Your task to perform on an android device: Empty the shopping cart on target.com. Image 0: 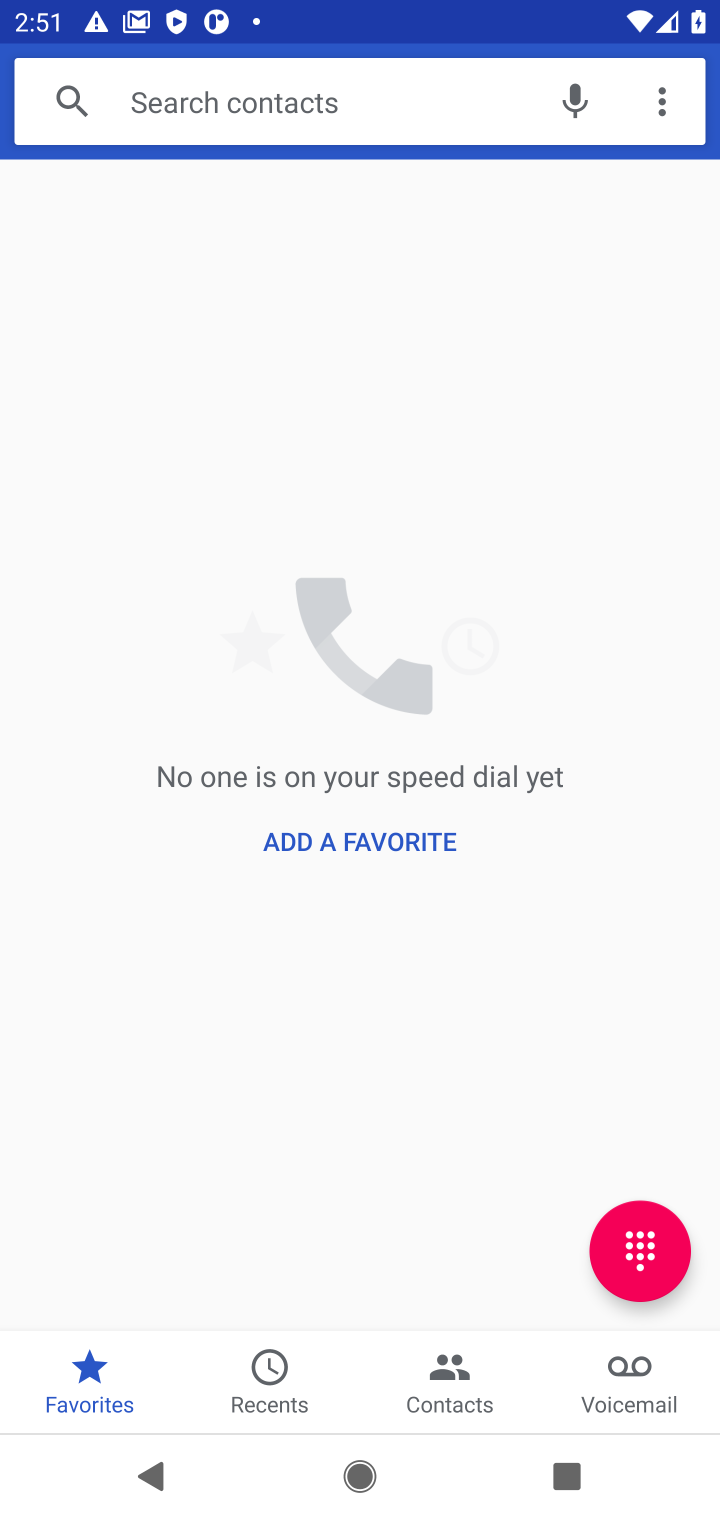
Step 0: press home button
Your task to perform on an android device: Empty the shopping cart on target.com. Image 1: 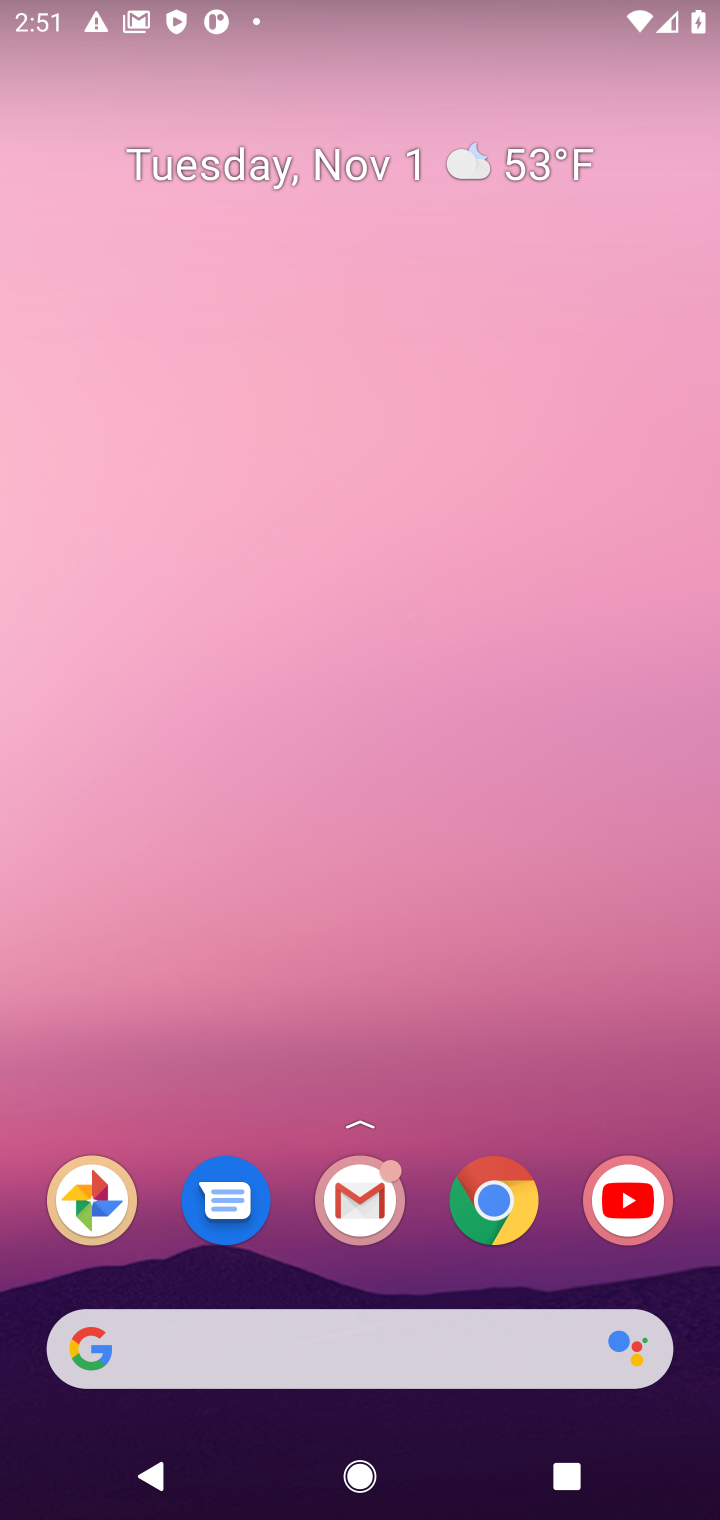
Step 1: click (84, 1353)
Your task to perform on an android device: Empty the shopping cart on target.com. Image 2: 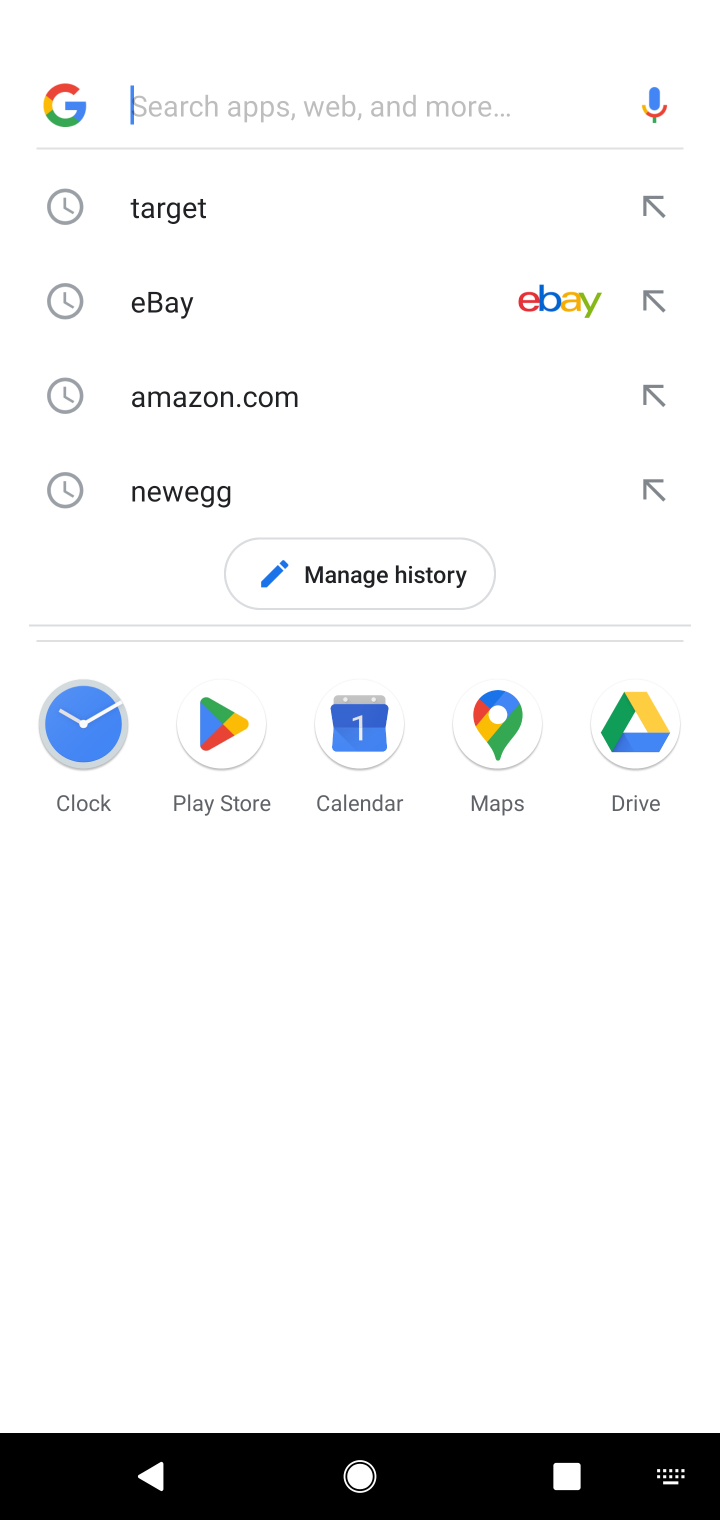
Step 2: click (235, 208)
Your task to perform on an android device: Empty the shopping cart on target.com. Image 3: 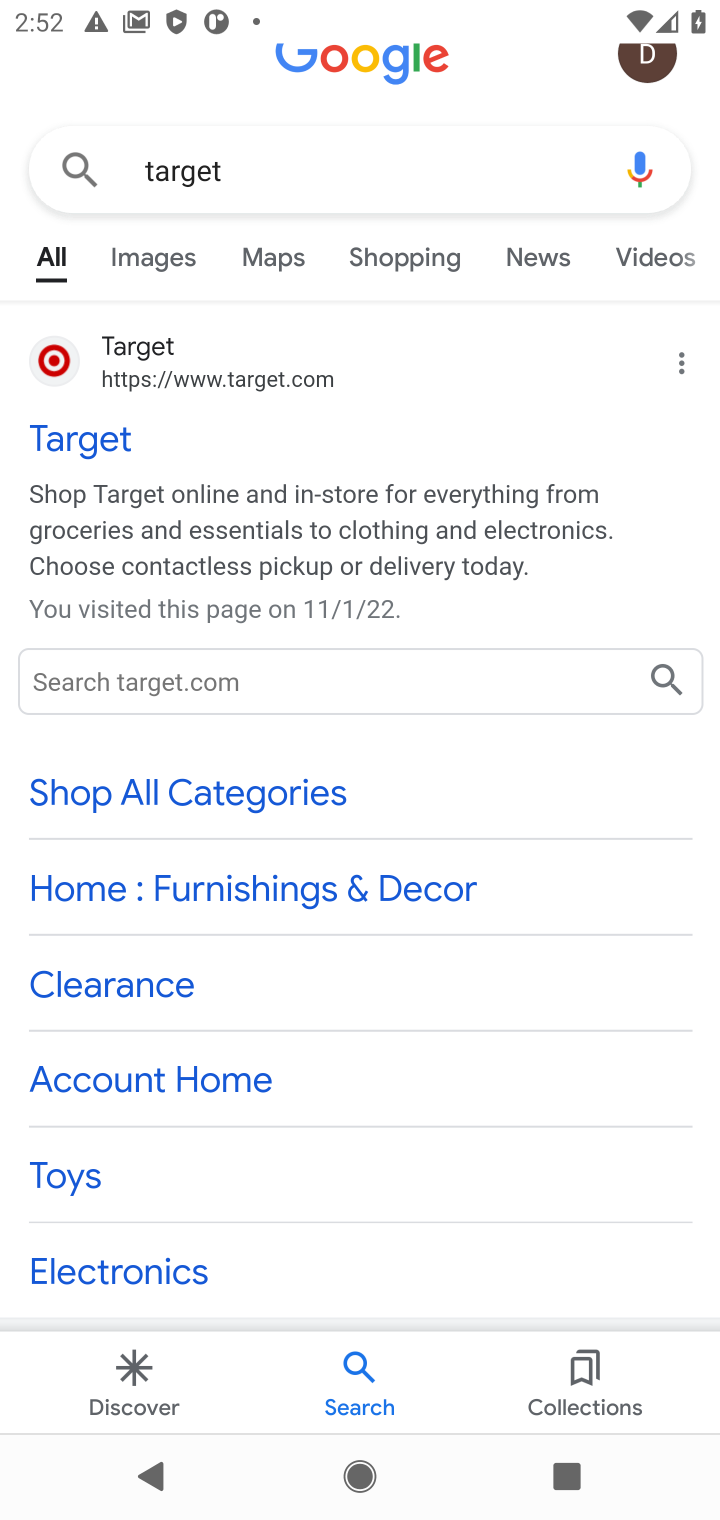
Step 3: click (70, 436)
Your task to perform on an android device: Empty the shopping cart on target.com. Image 4: 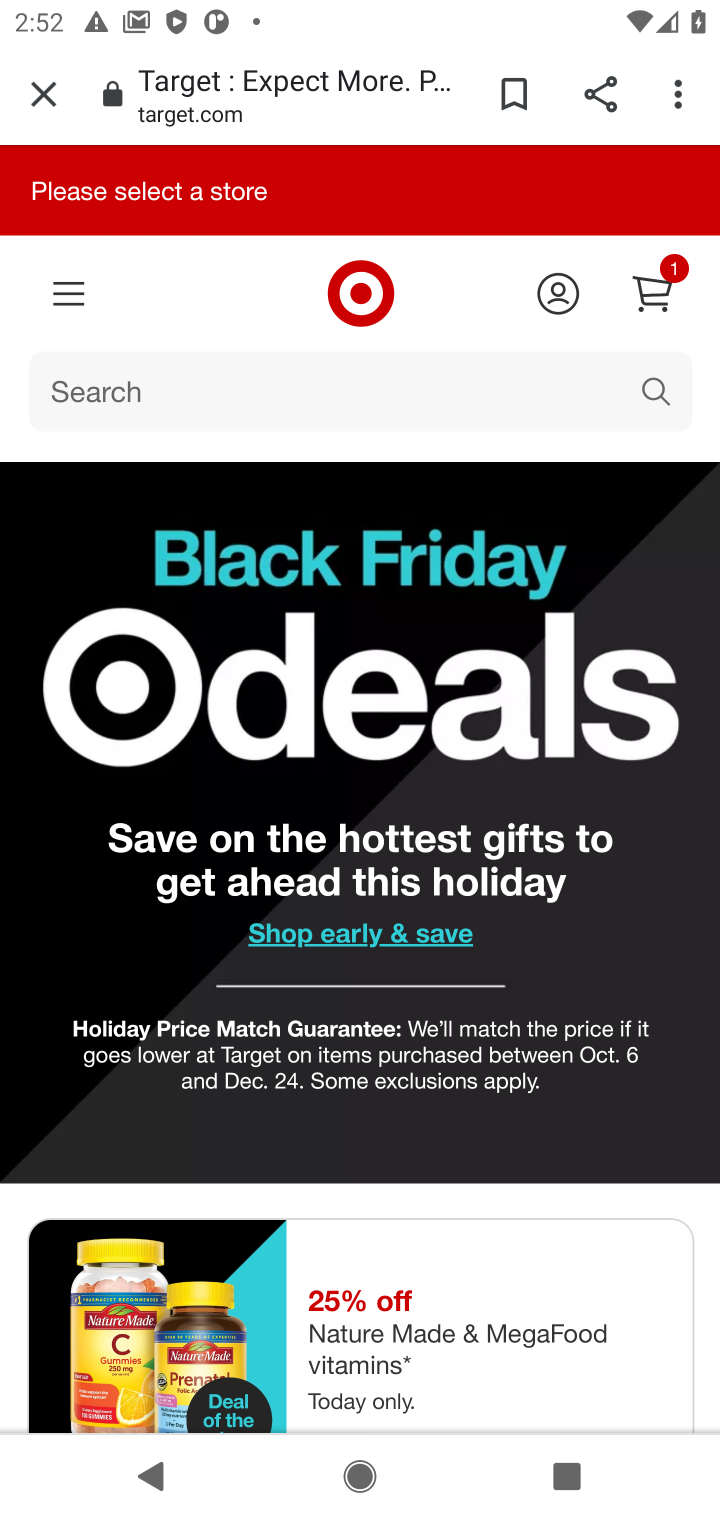
Step 4: click (652, 386)
Your task to perform on an android device: Empty the shopping cart on target.com. Image 5: 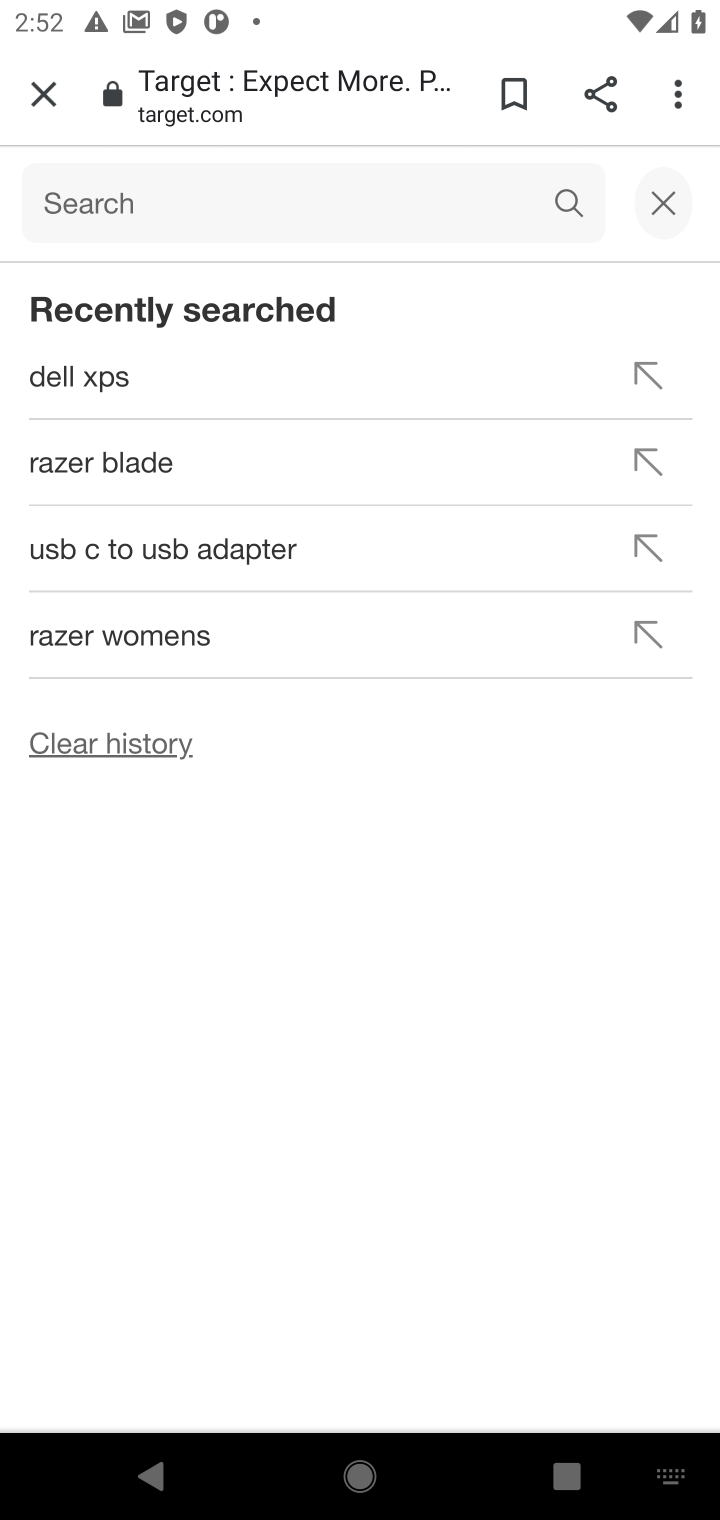
Step 5: click (656, 201)
Your task to perform on an android device: Empty the shopping cart on target.com. Image 6: 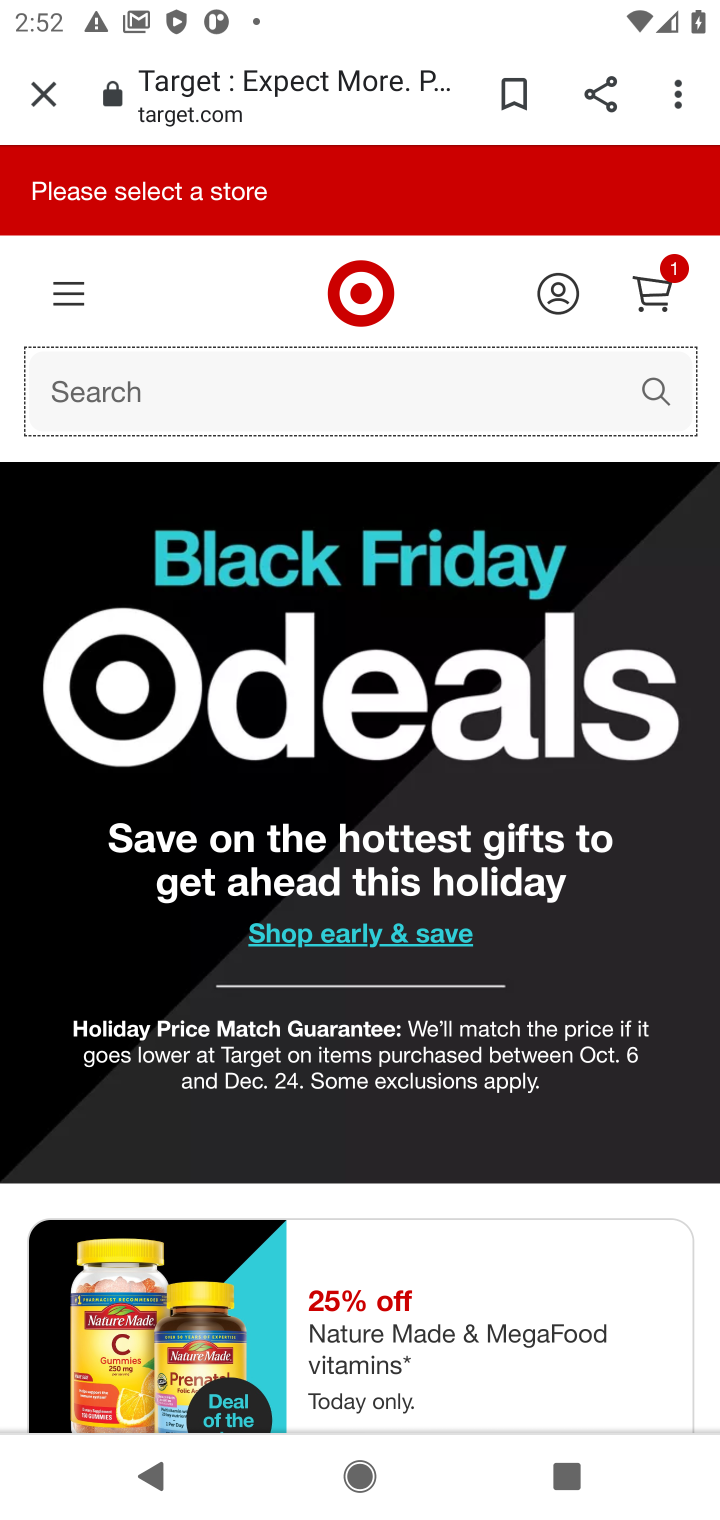
Step 6: click (657, 295)
Your task to perform on an android device: Empty the shopping cart on target.com. Image 7: 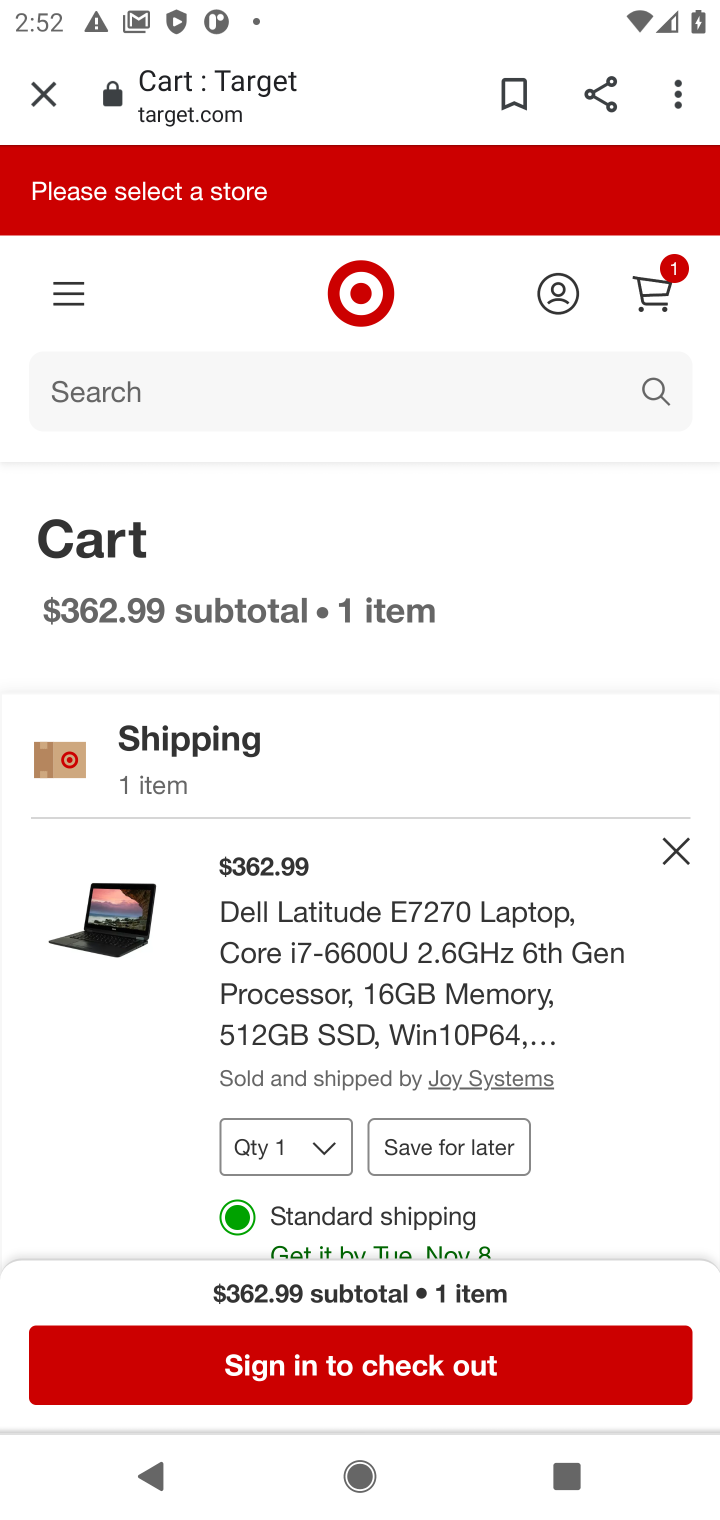
Step 7: click (678, 851)
Your task to perform on an android device: Empty the shopping cart on target.com. Image 8: 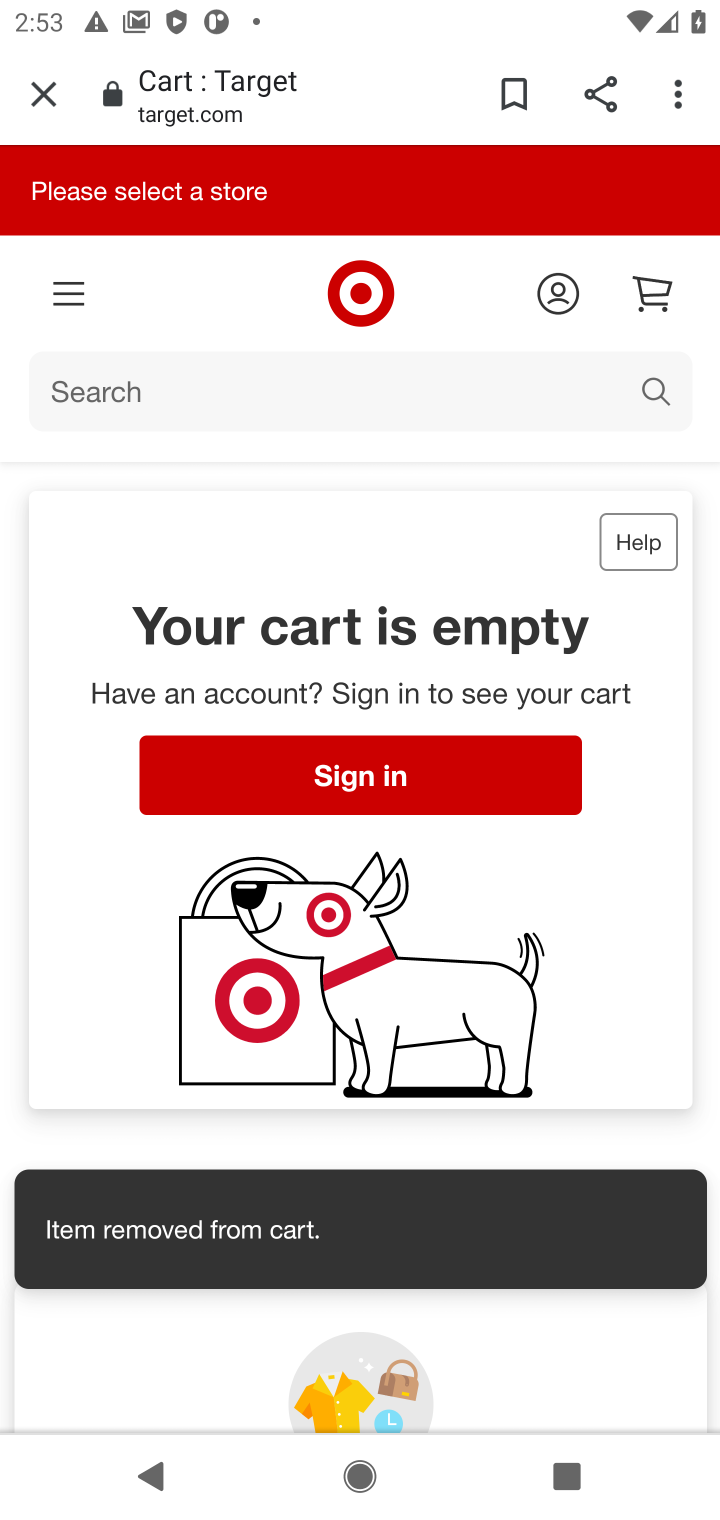
Step 8: task complete